Your task to perform on an android device: check storage Image 0: 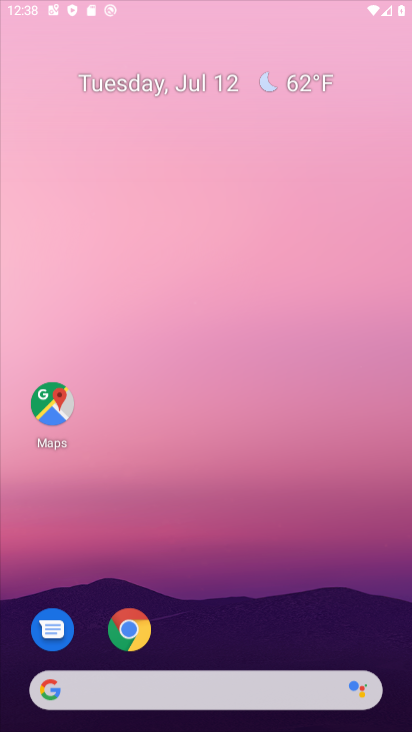
Step 0: drag from (170, 174) to (151, 123)
Your task to perform on an android device: check storage Image 1: 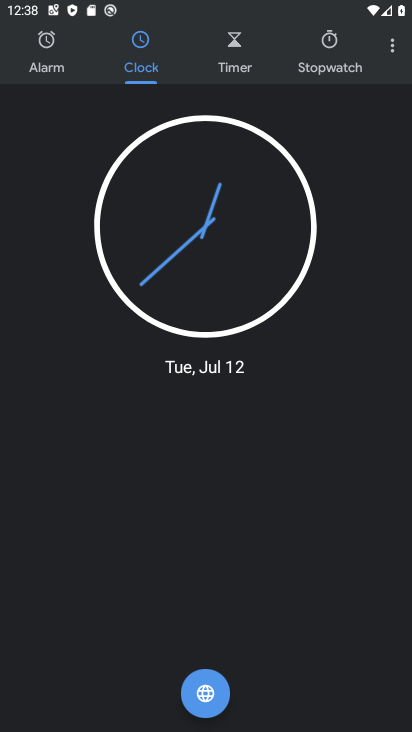
Step 1: press home button
Your task to perform on an android device: check storage Image 2: 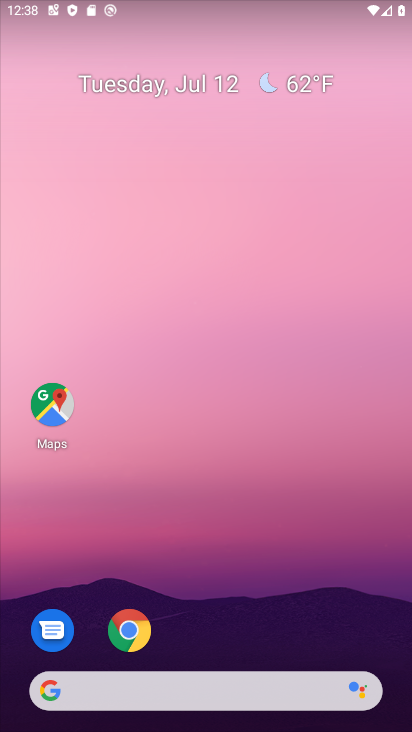
Step 2: drag from (272, 544) to (200, 109)
Your task to perform on an android device: check storage Image 3: 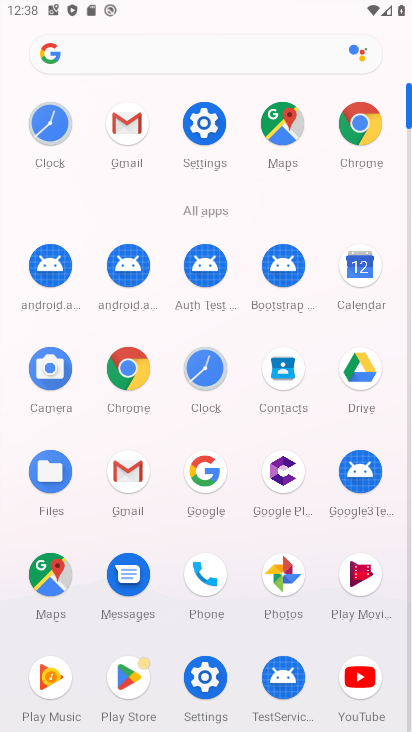
Step 3: click (202, 122)
Your task to perform on an android device: check storage Image 4: 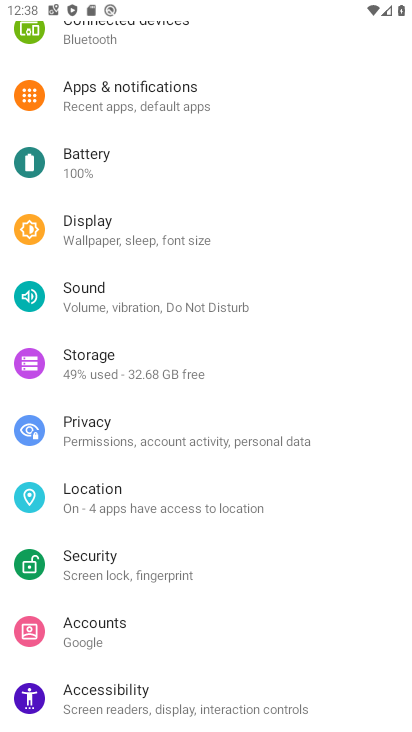
Step 4: click (98, 351)
Your task to perform on an android device: check storage Image 5: 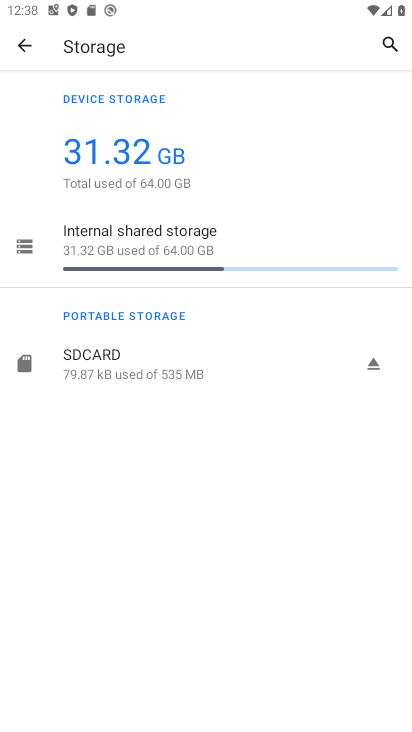
Step 5: task complete